Your task to perform on an android device: Open accessibility settings Image 0: 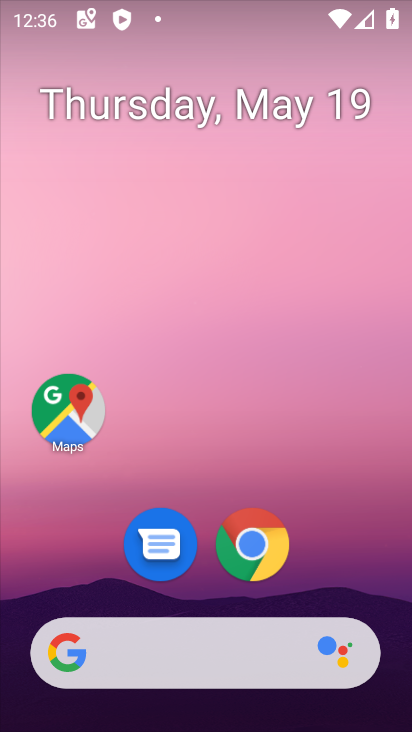
Step 0: drag from (325, 712) to (392, 86)
Your task to perform on an android device: Open accessibility settings Image 1: 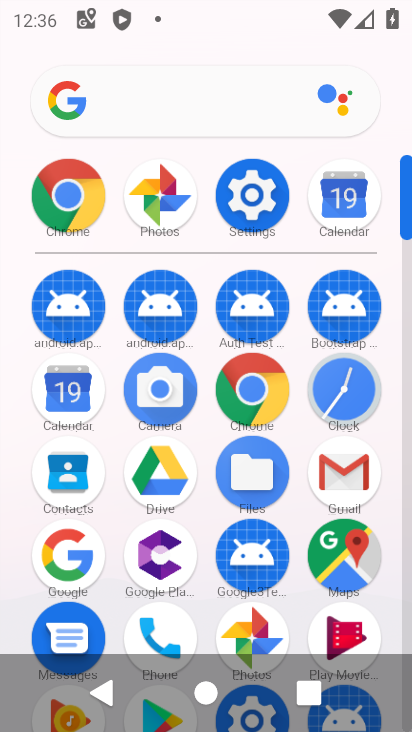
Step 1: click (258, 171)
Your task to perform on an android device: Open accessibility settings Image 2: 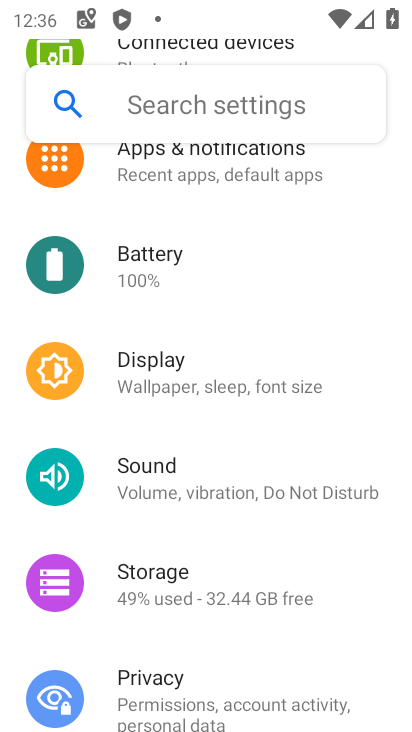
Step 2: drag from (251, 252) to (266, 666)
Your task to perform on an android device: Open accessibility settings Image 3: 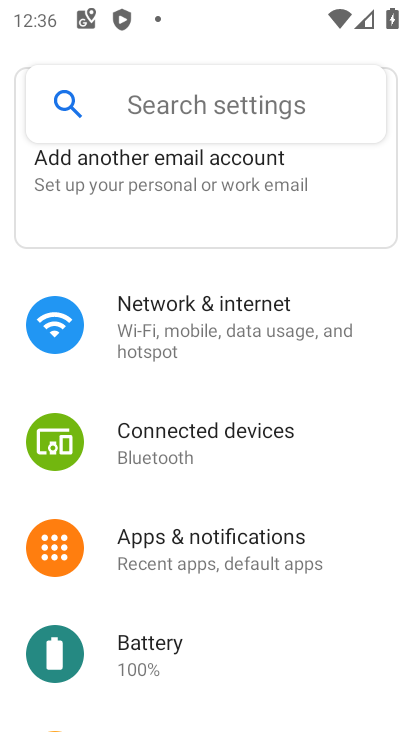
Step 3: drag from (196, 626) to (132, 193)
Your task to perform on an android device: Open accessibility settings Image 4: 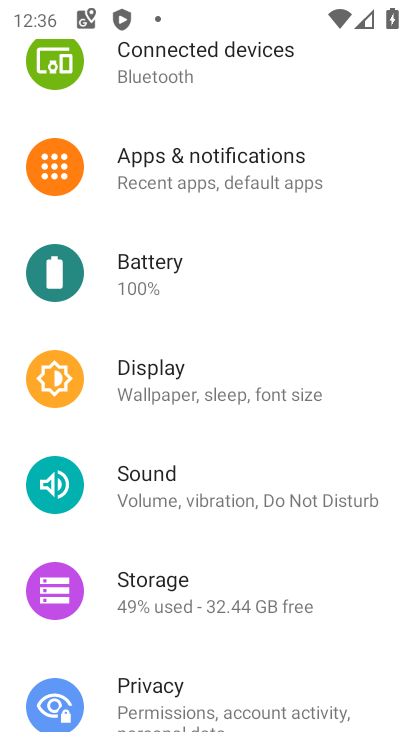
Step 4: drag from (237, 639) to (252, 286)
Your task to perform on an android device: Open accessibility settings Image 5: 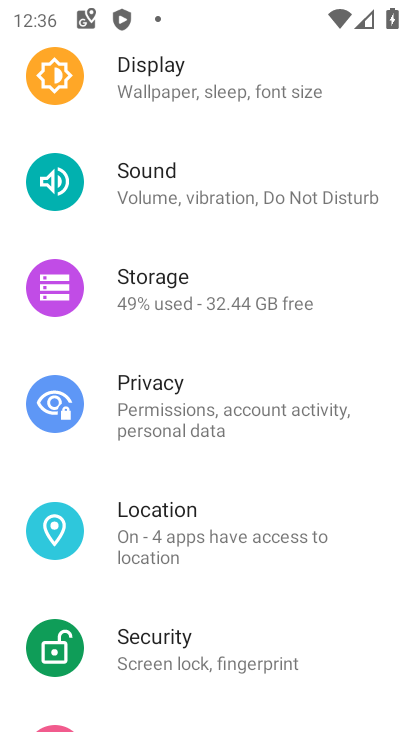
Step 5: drag from (315, 651) to (336, 90)
Your task to perform on an android device: Open accessibility settings Image 6: 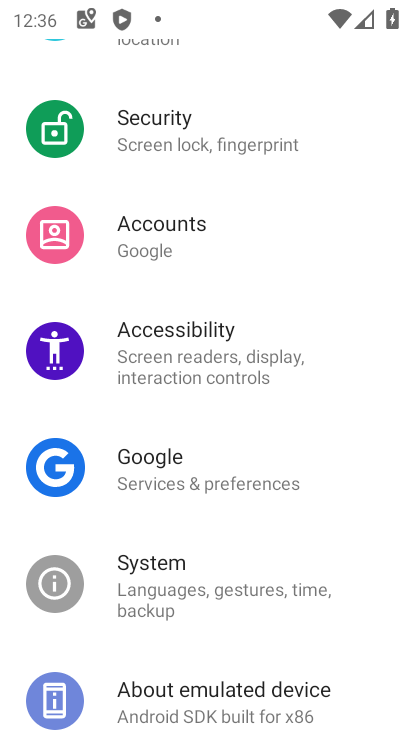
Step 6: click (271, 362)
Your task to perform on an android device: Open accessibility settings Image 7: 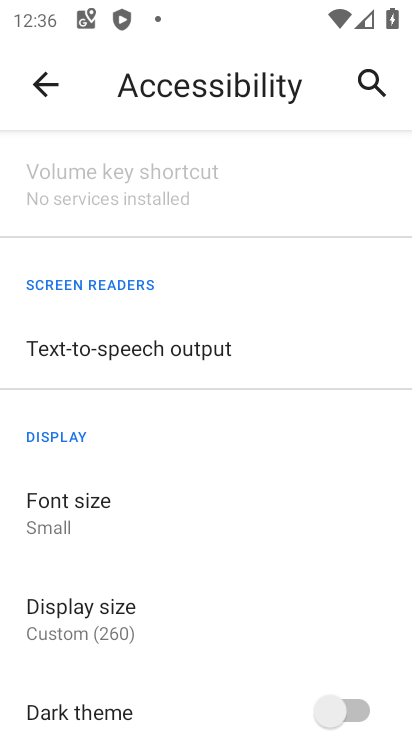
Step 7: task complete